Your task to perform on an android device: turn off translation in the chrome app Image 0: 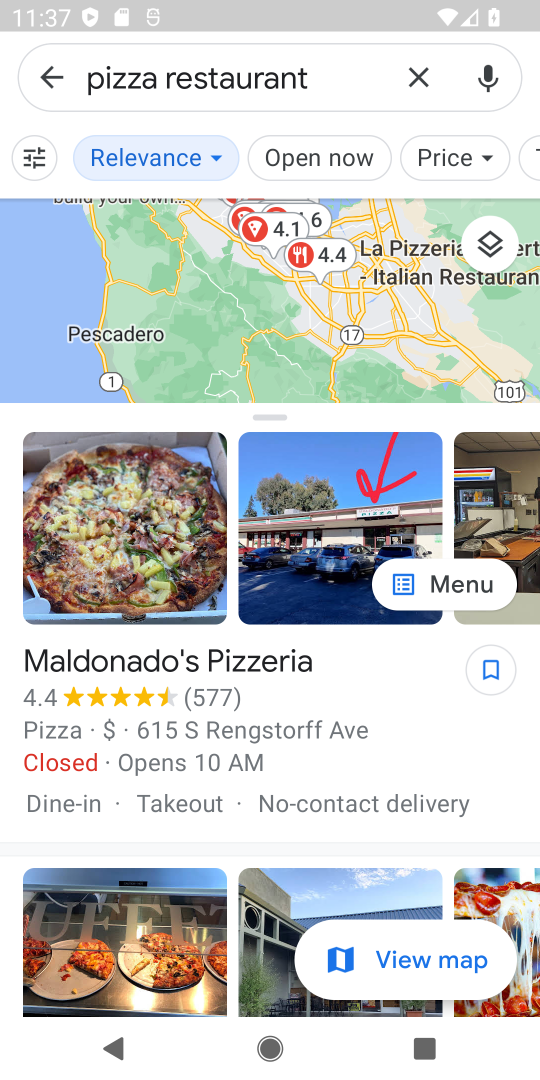
Step 0: press home button
Your task to perform on an android device: turn off translation in the chrome app Image 1: 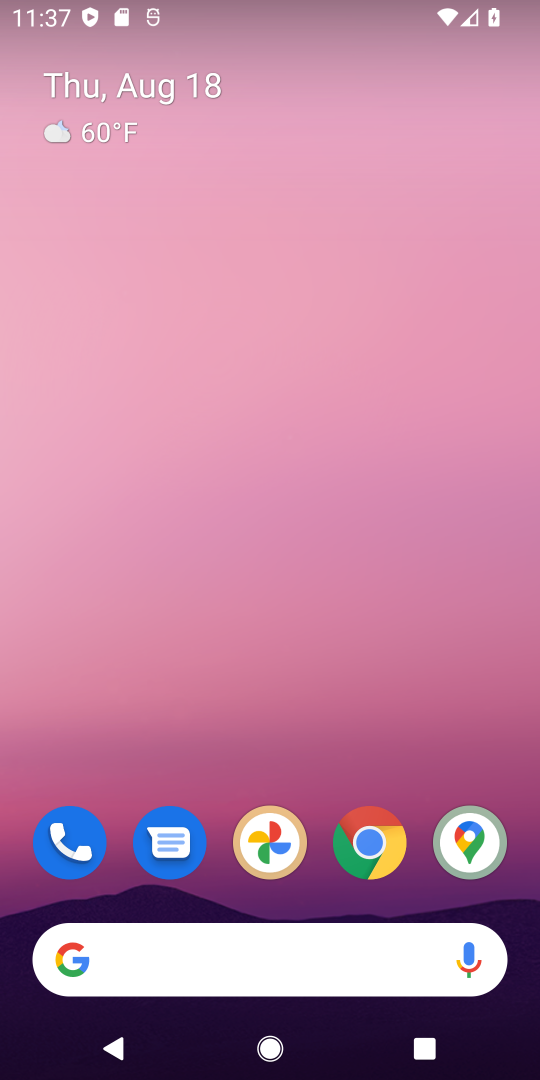
Step 1: click (368, 840)
Your task to perform on an android device: turn off translation in the chrome app Image 2: 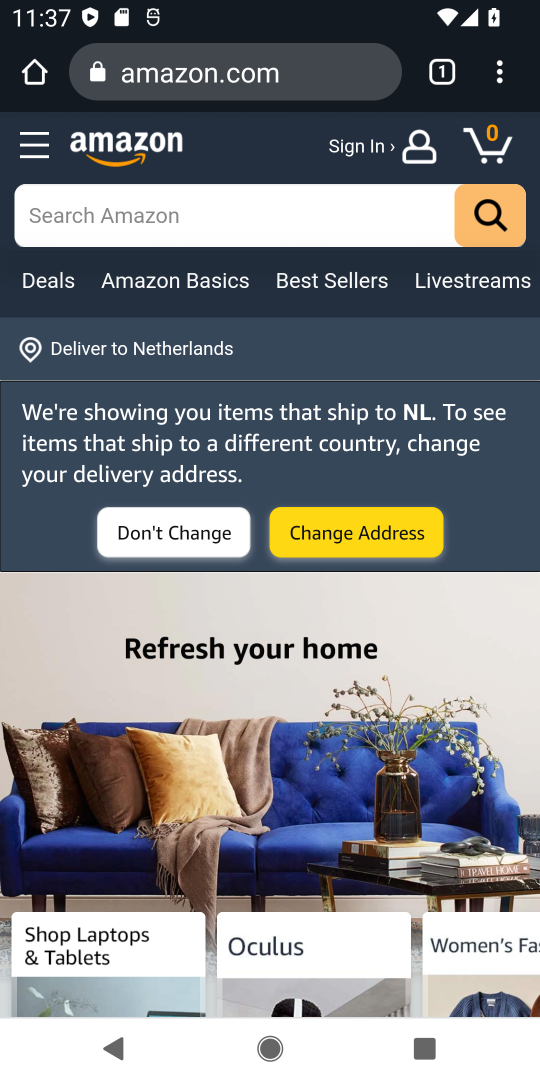
Step 2: click (504, 75)
Your task to perform on an android device: turn off translation in the chrome app Image 3: 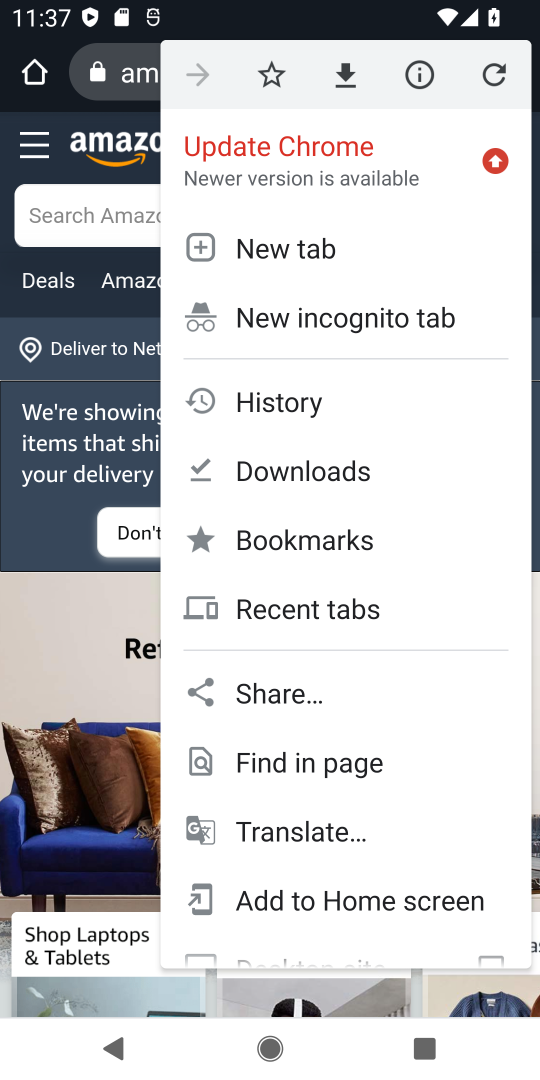
Step 3: drag from (323, 866) to (300, 180)
Your task to perform on an android device: turn off translation in the chrome app Image 4: 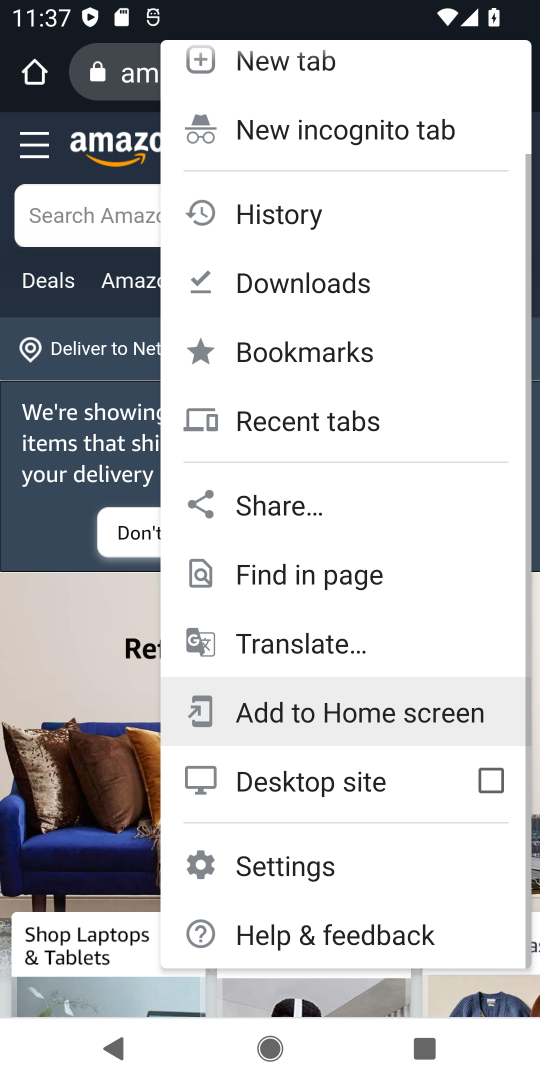
Step 4: click (300, 180)
Your task to perform on an android device: turn off translation in the chrome app Image 5: 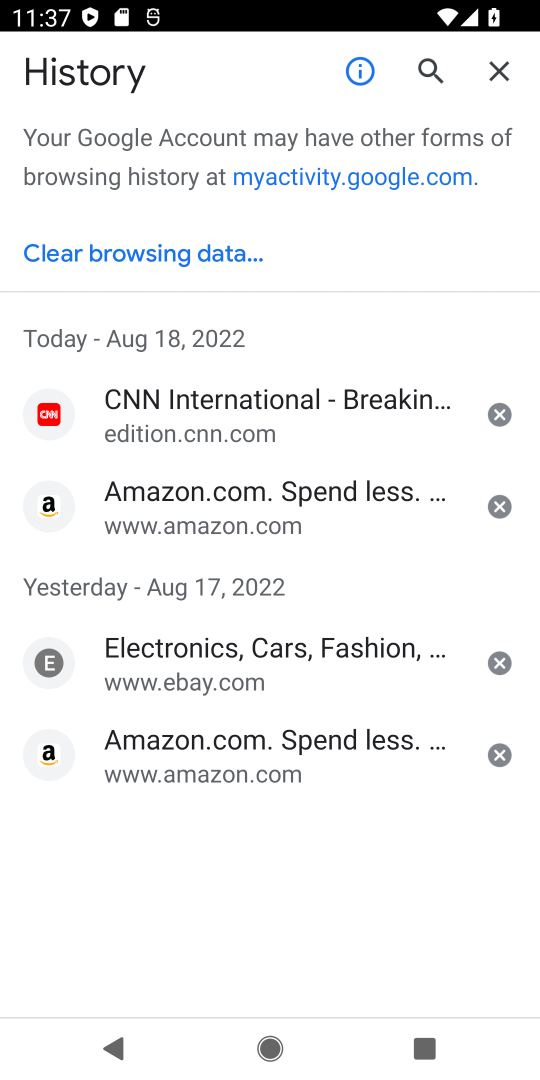
Step 5: click (503, 65)
Your task to perform on an android device: turn off translation in the chrome app Image 6: 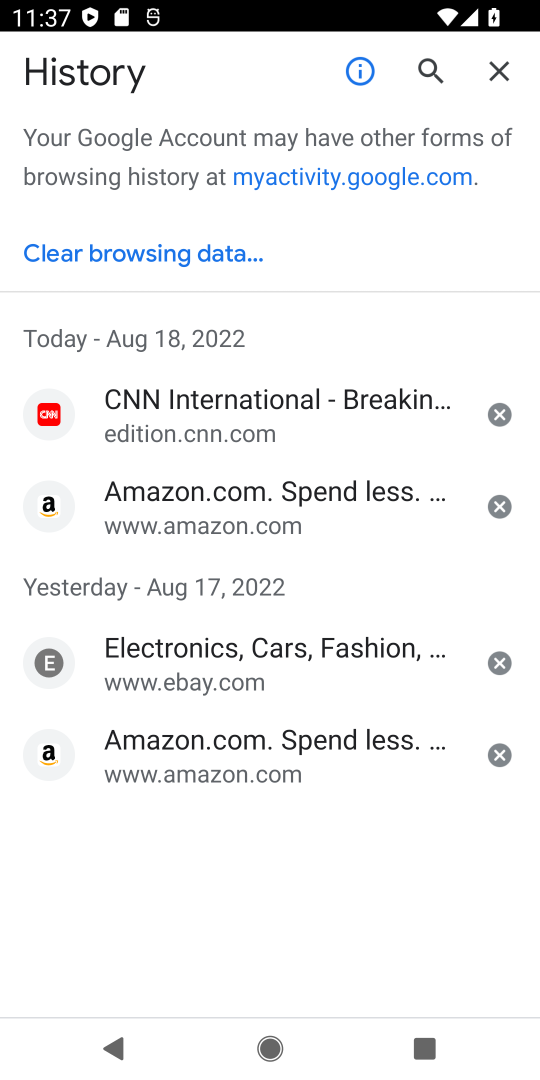
Step 6: click (503, 65)
Your task to perform on an android device: turn off translation in the chrome app Image 7: 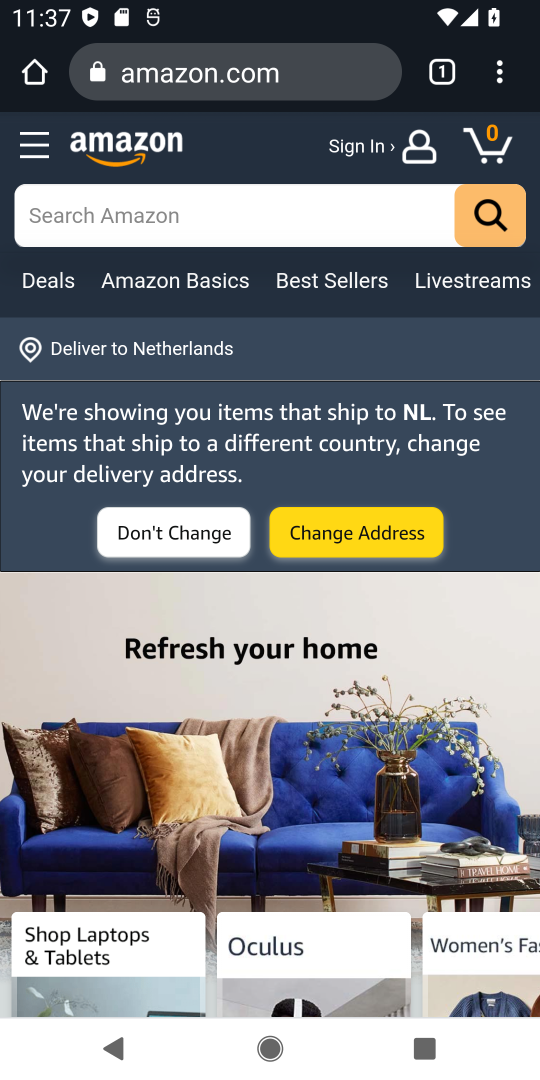
Step 7: click (511, 64)
Your task to perform on an android device: turn off translation in the chrome app Image 8: 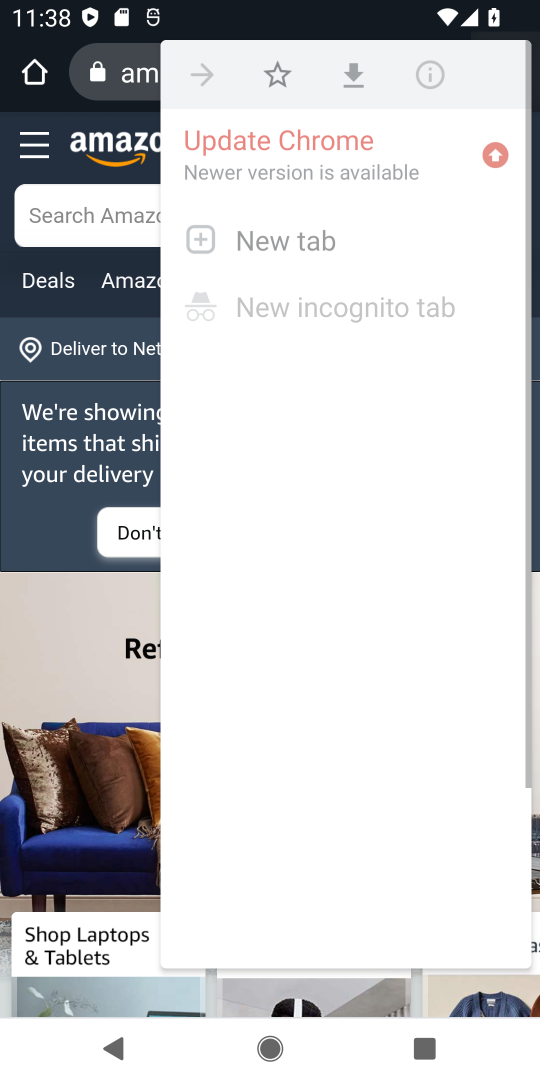
Step 8: click (511, 64)
Your task to perform on an android device: turn off translation in the chrome app Image 9: 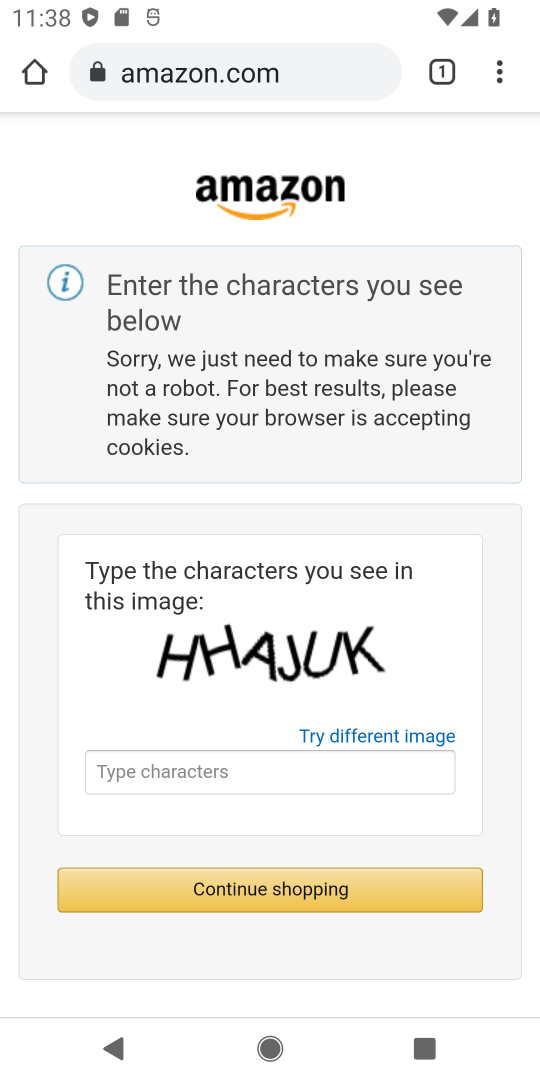
Step 9: click (491, 56)
Your task to perform on an android device: turn off translation in the chrome app Image 10: 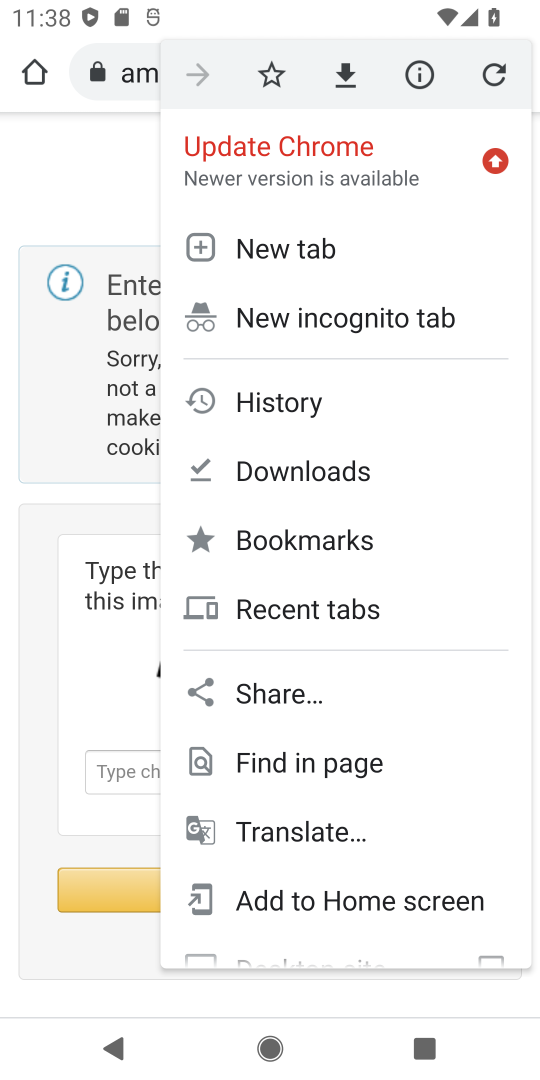
Step 10: drag from (298, 851) to (333, 301)
Your task to perform on an android device: turn off translation in the chrome app Image 11: 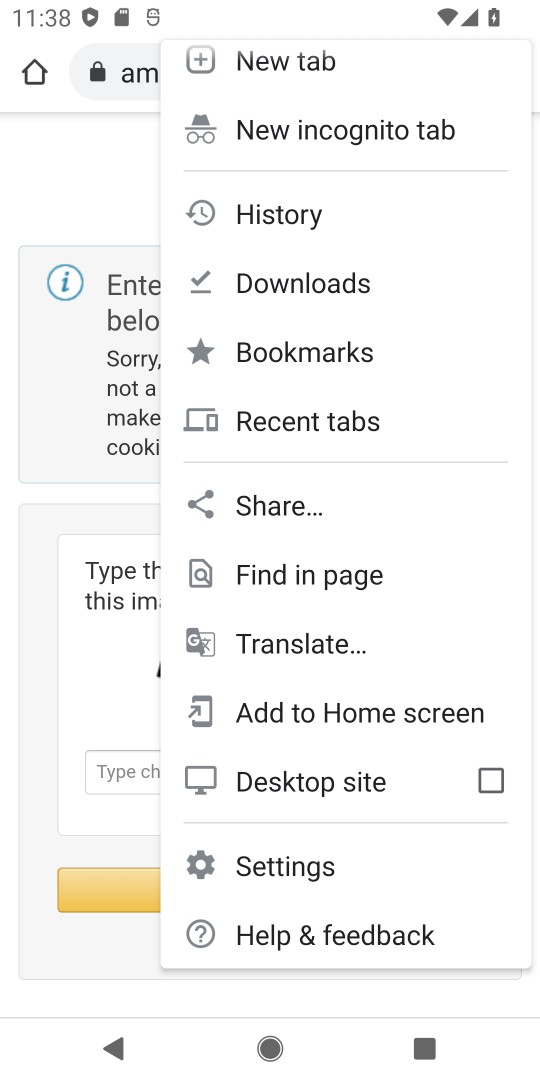
Step 11: click (288, 861)
Your task to perform on an android device: turn off translation in the chrome app Image 12: 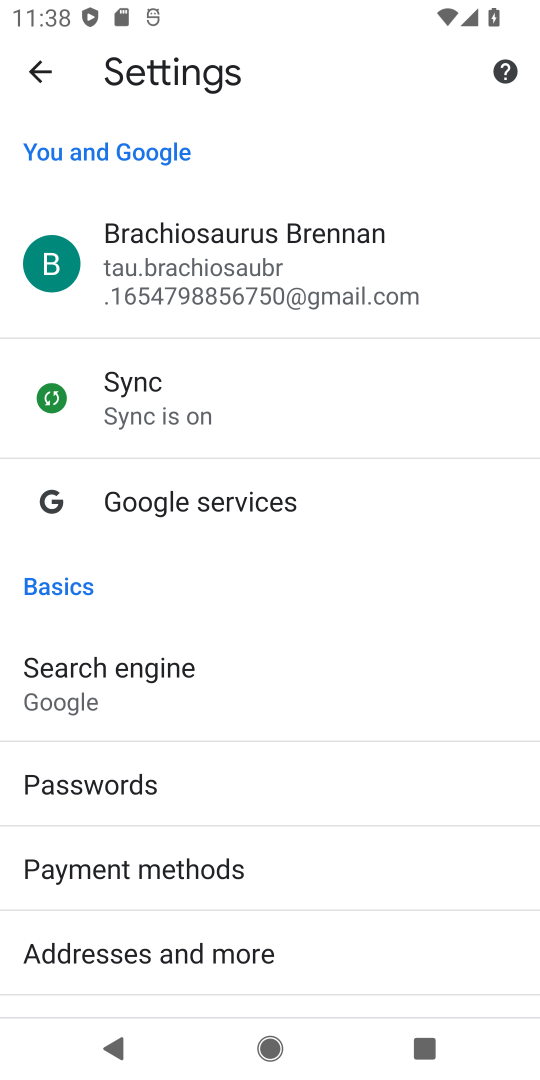
Step 12: drag from (161, 901) to (240, 164)
Your task to perform on an android device: turn off translation in the chrome app Image 13: 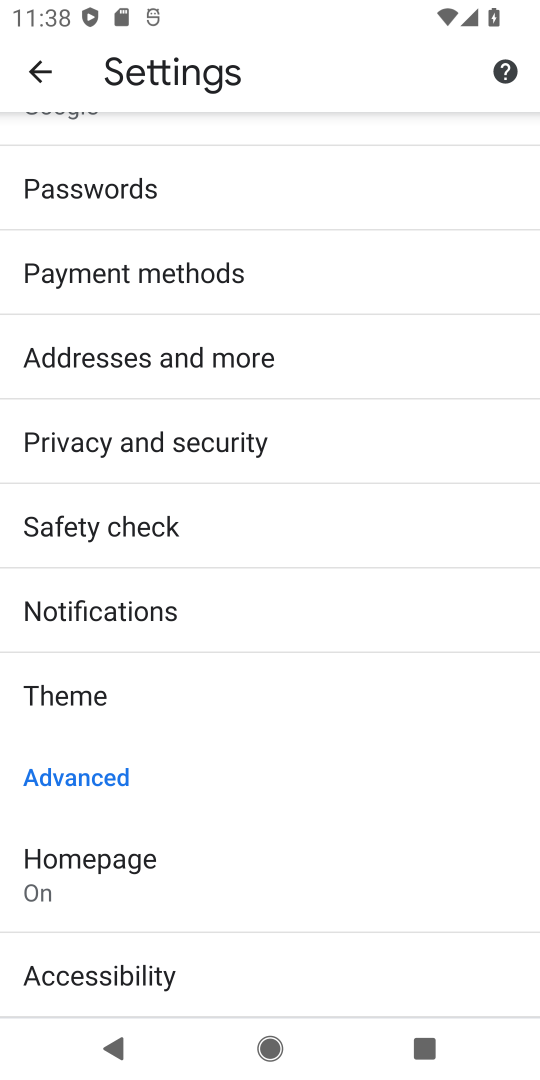
Step 13: drag from (104, 912) to (205, 353)
Your task to perform on an android device: turn off translation in the chrome app Image 14: 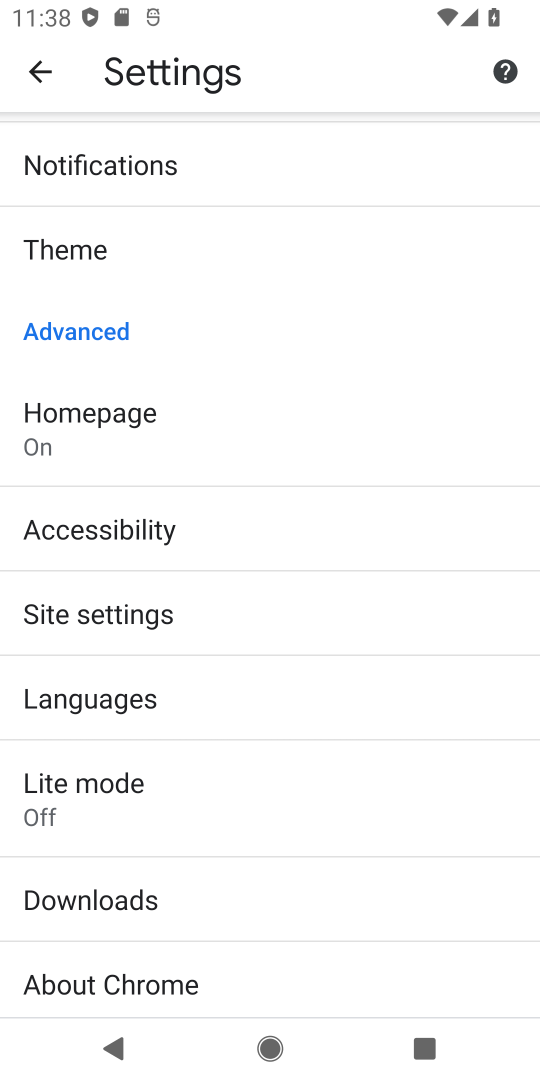
Step 14: click (150, 698)
Your task to perform on an android device: turn off translation in the chrome app Image 15: 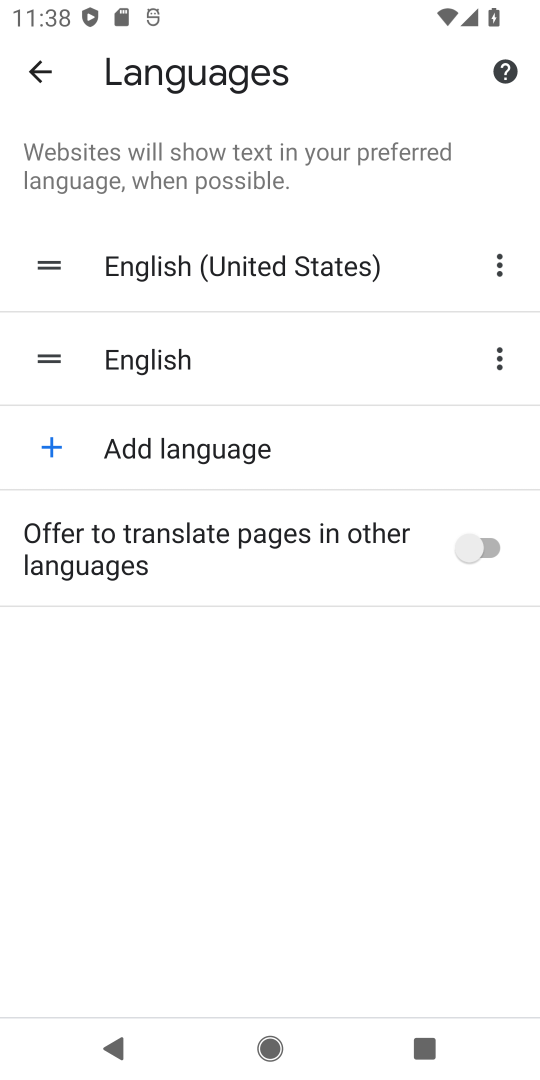
Step 15: task complete